Your task to perform on an android device: change the clock display to analog Image 0: 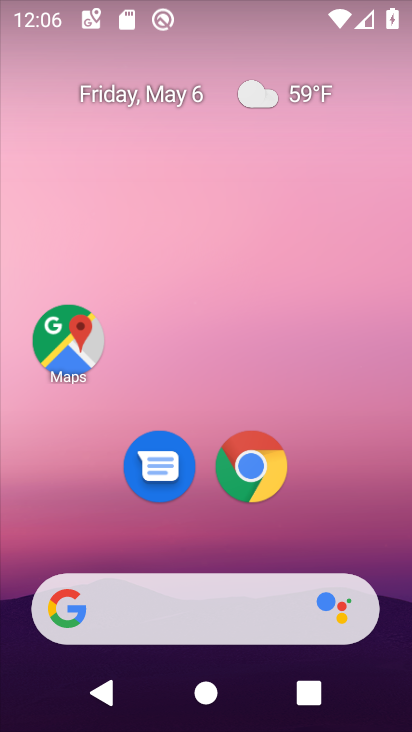
Step 0: drag from (393, 556) to (282, 35)
Your task to perform on an android device: change the clock display to analog Image 1: 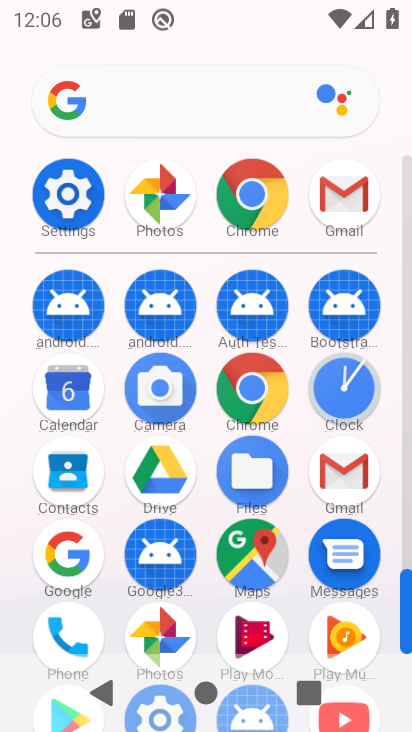
Step 1: click (357, 388)
Your task to perform on an android device: change the clock display to analog Image 2: 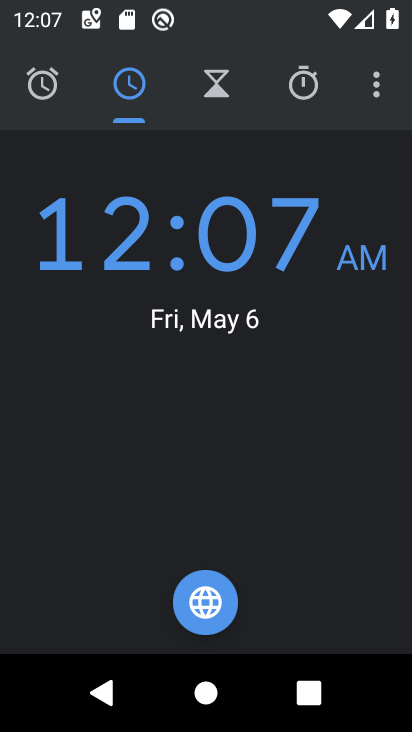
Step 2: click (382, 122)
Your task to perform on an android device: change the clock display to analog Image 3: 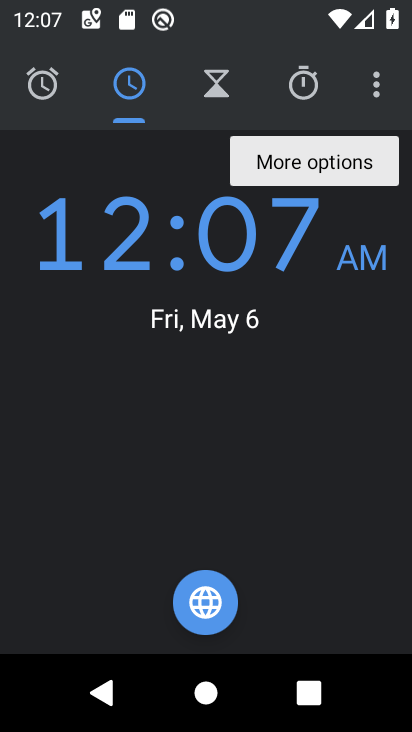
Step 3: click (381, 123)
Your task to perform on an android device: change the clock display to analog Image 4: 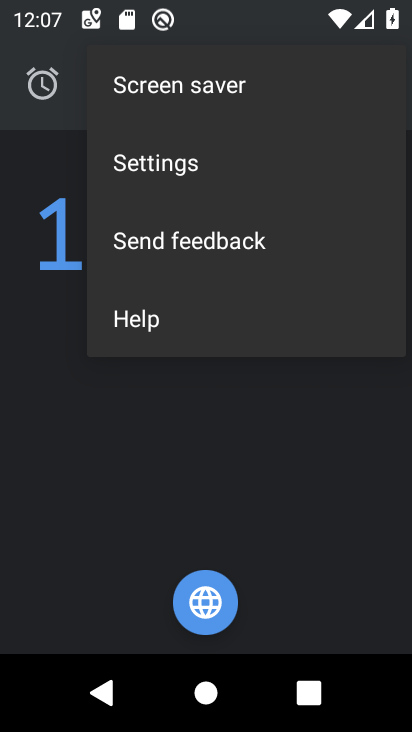
Step 4: click (320, 190)
Your task to perform on an android device: change the clock display to analog Image 5: 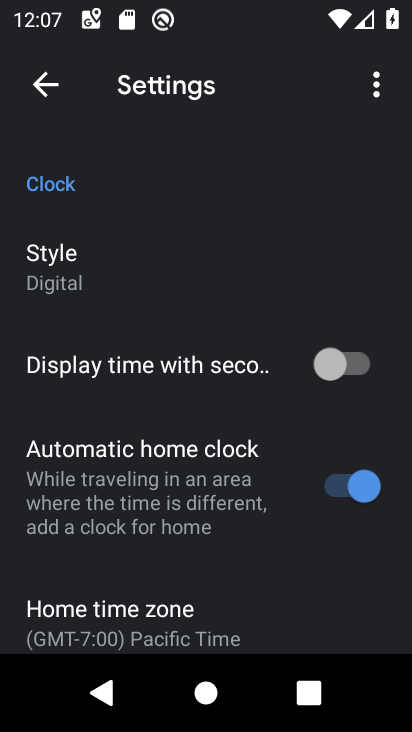
Step 5: click (247, 263)
Your task to perform on an android device: change the clock display to analog Image 6: 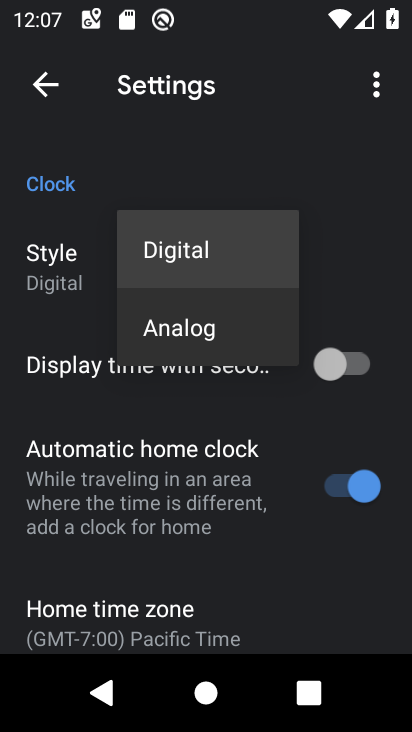
Step 6: click (237, 325)
Your task to perform on an android device: change the clock display to analog Image 7: 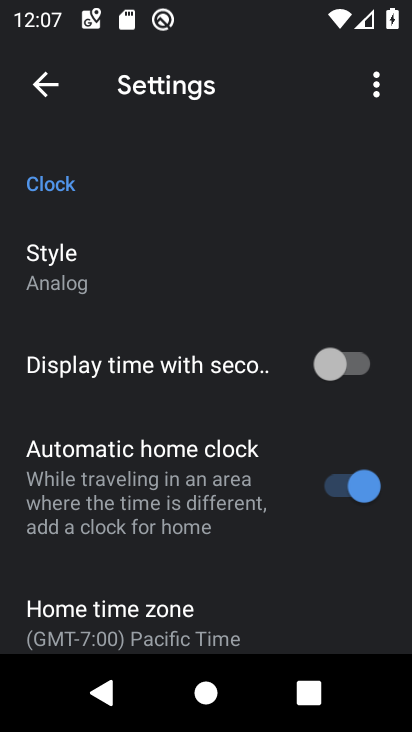
Step 7: task complete